Your task to perform on an android device: change text size in settings app Image 0: 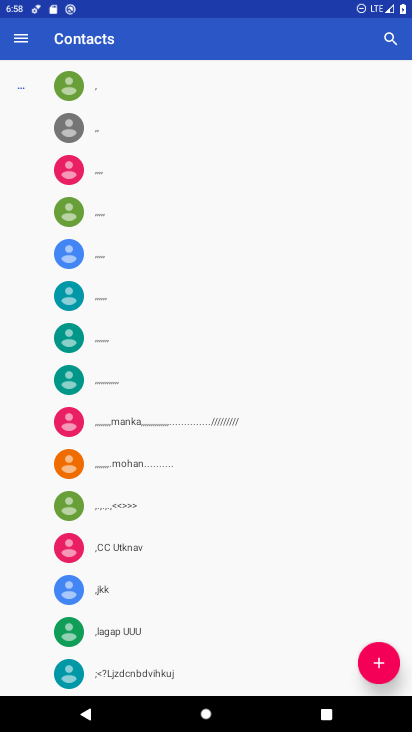
Step 0: press home button
Your task to perform on an android device: change text size in settings app Image 1: 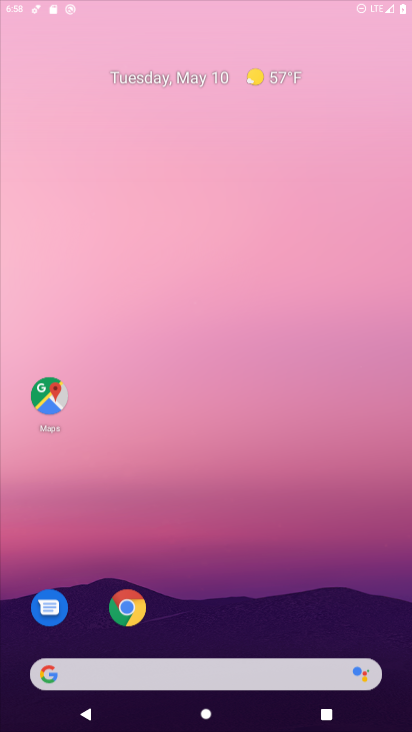
Step 1: click (237, 62)
Your task to perform on an android device: change text size in settings app Image 2: 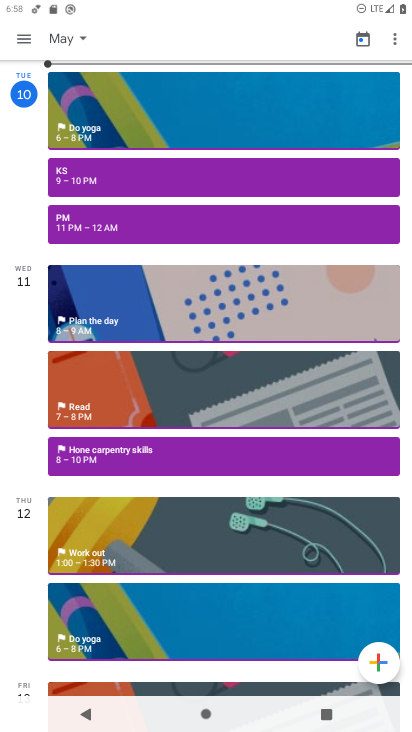
Step 2: press home button
Your task to perform on an android device: change text size in settings app Image 3: 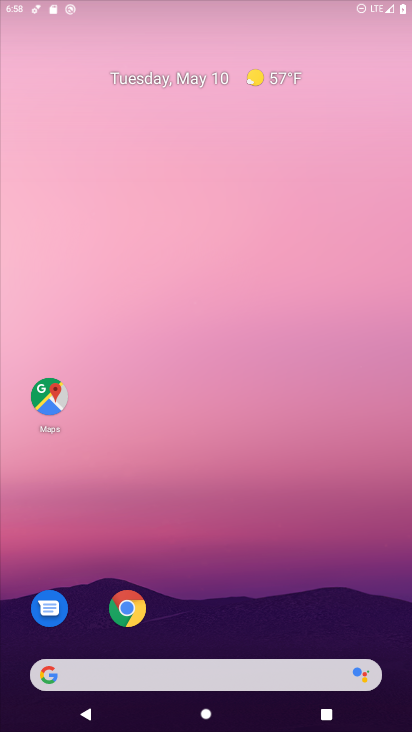
Step 3: drag from (295, 597) to (264, 37)
Your task to perform on an android device: change text size in settings app Image 4: 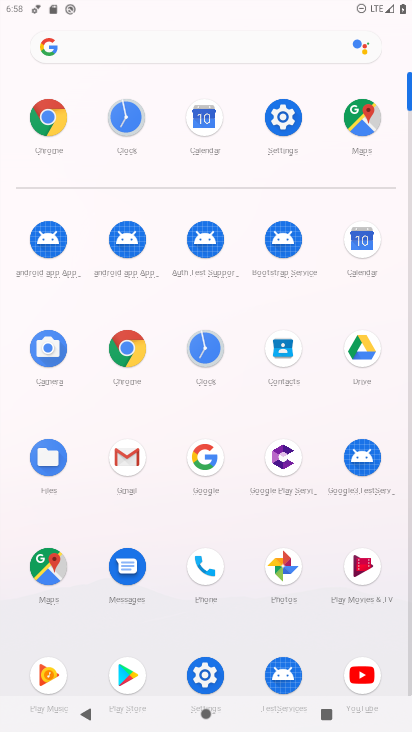
Step 4: click (280, 95)
Your task to perform on an android device: change text size in settings app Image 5: 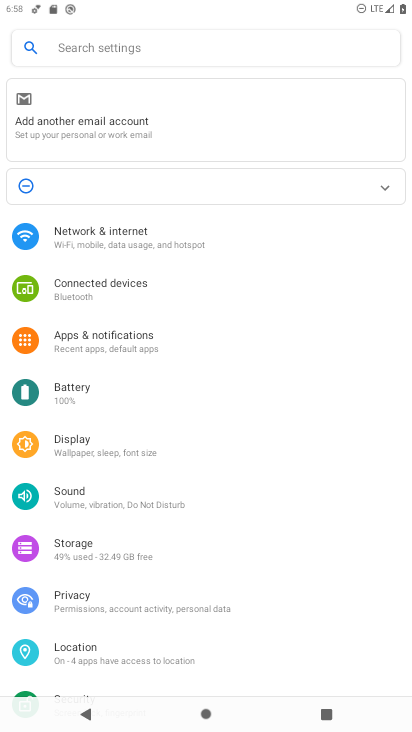
Step 5: click (120, 439)
Your task to perform on an android device: change text size in settings app Image 6: 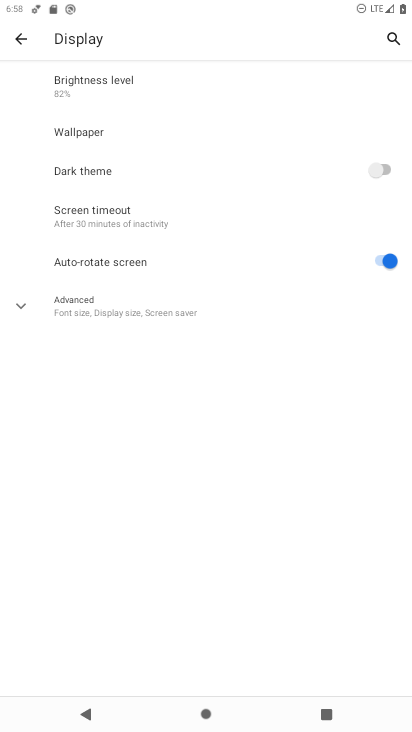
Step 6: click (82, 296)
Your task to perform on an android device: change text size in settings app Image 7: 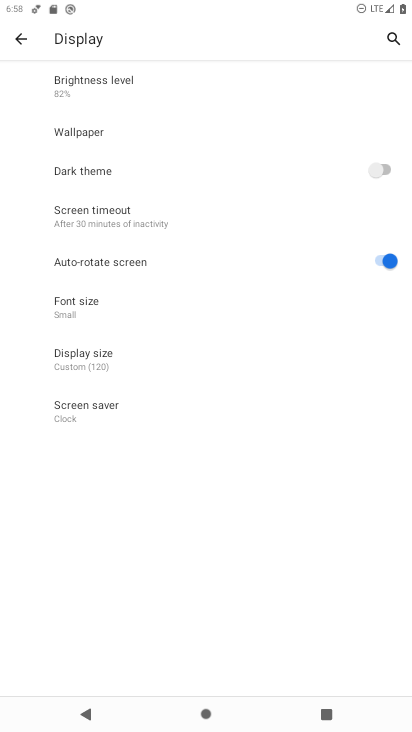
Step 7: click (82, 296)
Your task to perform on an android device: change text size in settings app Image 8: 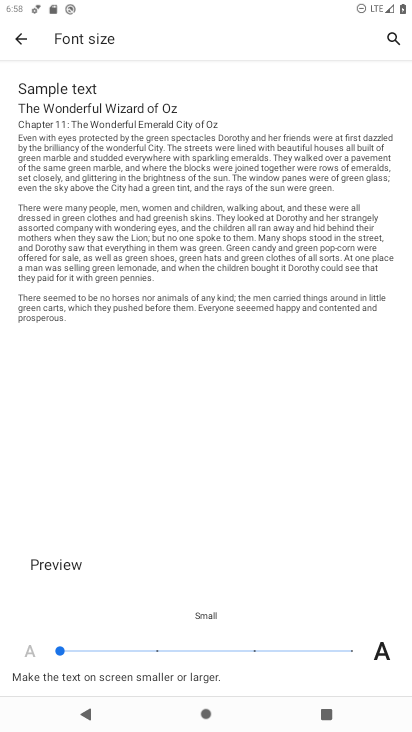
Step 8: click (151, 653)
Your task to perform on an android device: change text size in settings app Image 9: 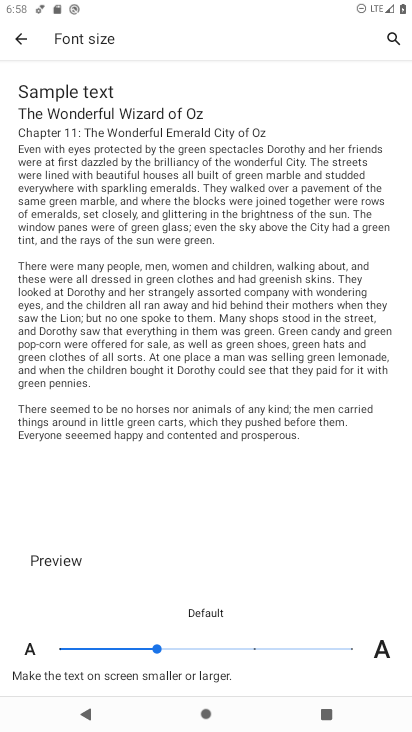
Step 9: task complete